Your task to perform on an android device: change the clock display to analog Image 0: 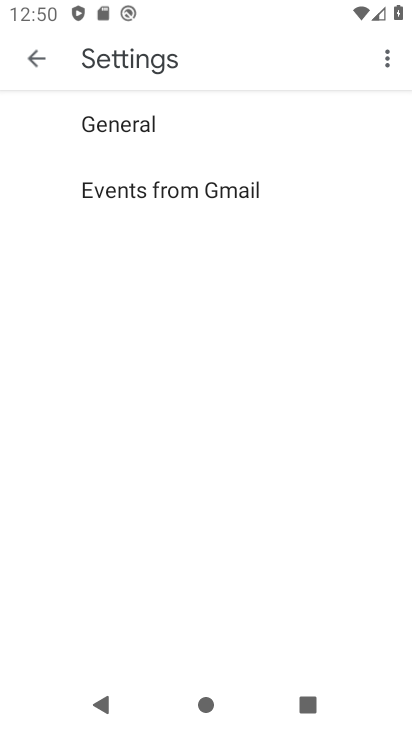
Step 0: press home button
Your task to perform on an android device: change the clock display to analog Image 1: 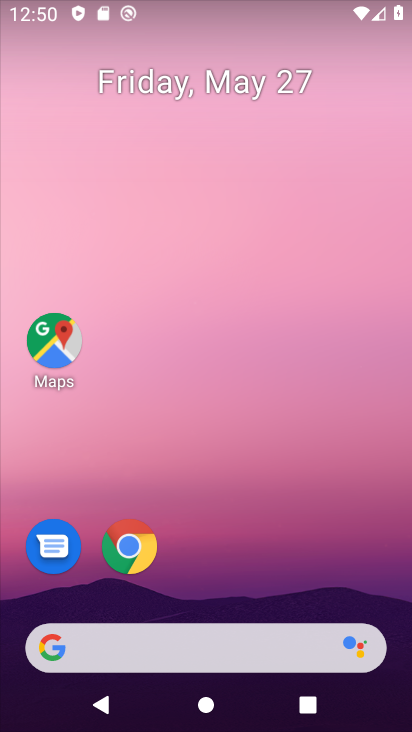
Step 1: drag from (217, 665) to (398, 169)
Your task to perform on an android device: change the clock display to analog Image 2: 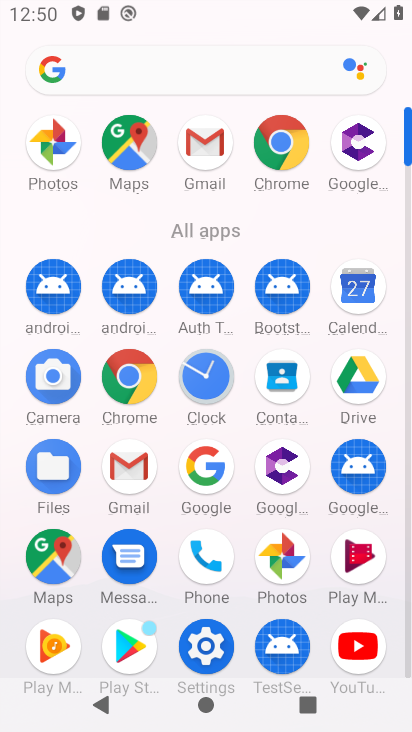
Step 2: click (207, 383)
Your task to perform on an android device: change the clock display to analog Image 3: 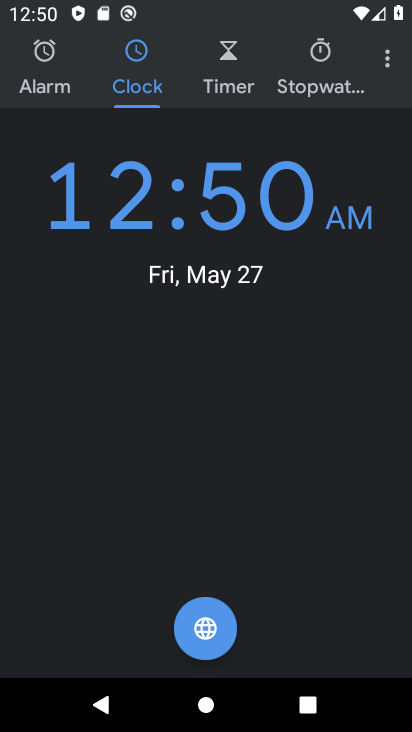
Step 3: click (388, 60)
Your task to perform on an android device: change the clock display to analog Image 4: 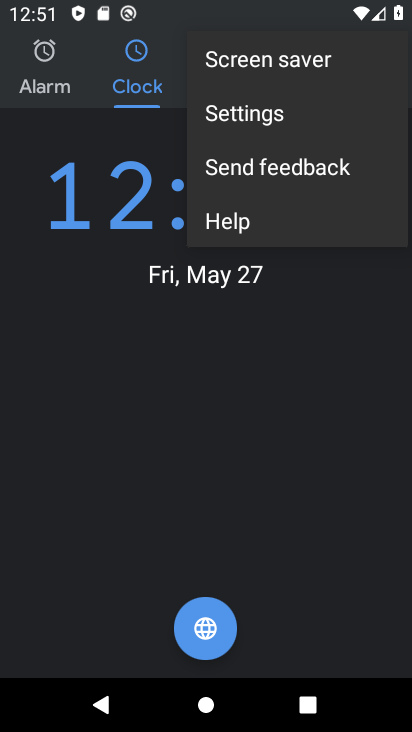
Step 4: click (302, 115)
Your task to perform on an android device: change the clock display to analog Image 5: 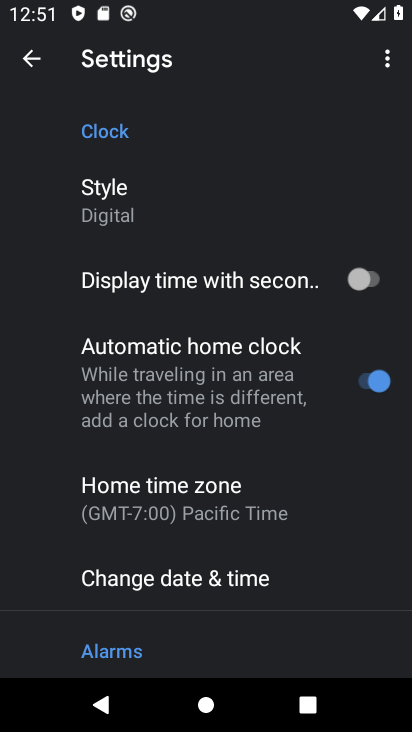
Step 5: click (136, 213)
Your task to perform on an android device: change the clock display to analog Image 6: 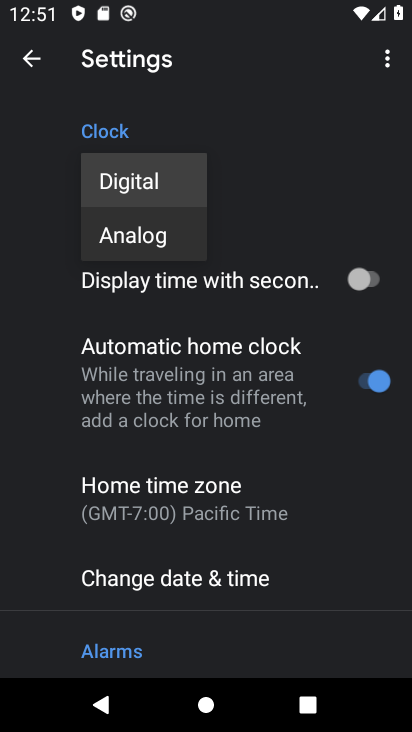
Step 6: click (138, 244)
Your task to perform on an android device: change the clock display to analog Image 7: 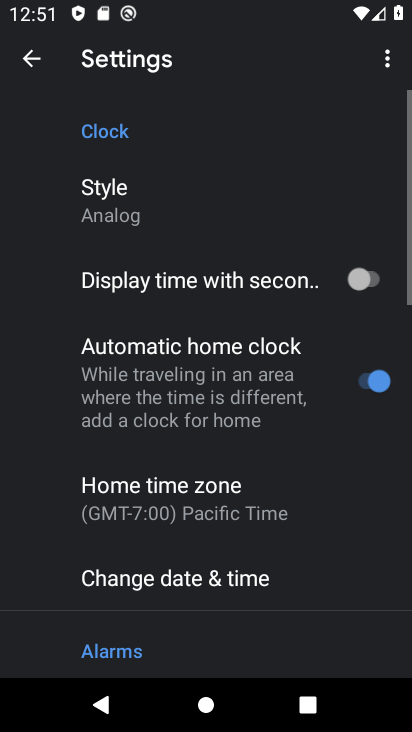
Step 7: task complete